Your task to perform on an android device: turn off location Image 0: 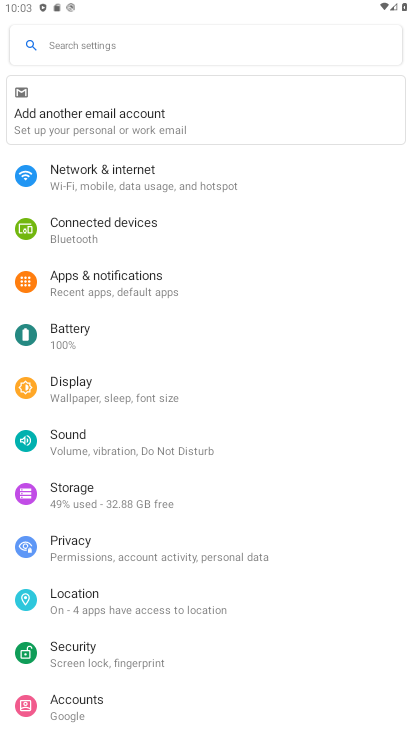
Step 0: click (112, 594)
Your task to perform on an android device: turn off location Image 1: 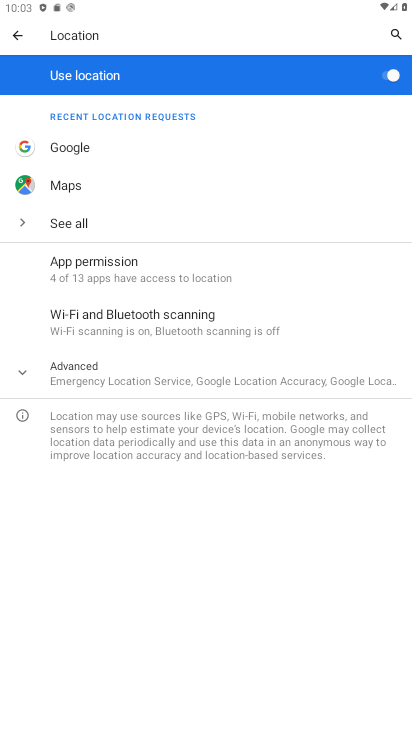
Step 1: click (383, 81)
Your task to perform on an android device: turn off location Image 2: 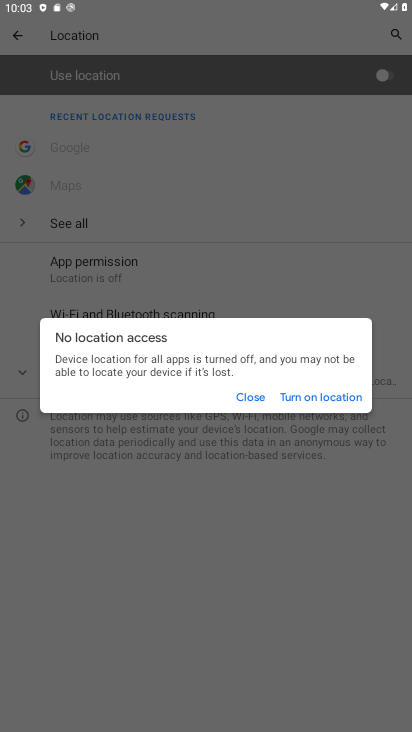
Step 2: click (254, 392)
Your task to perform on an android device: turn off location Image 3: 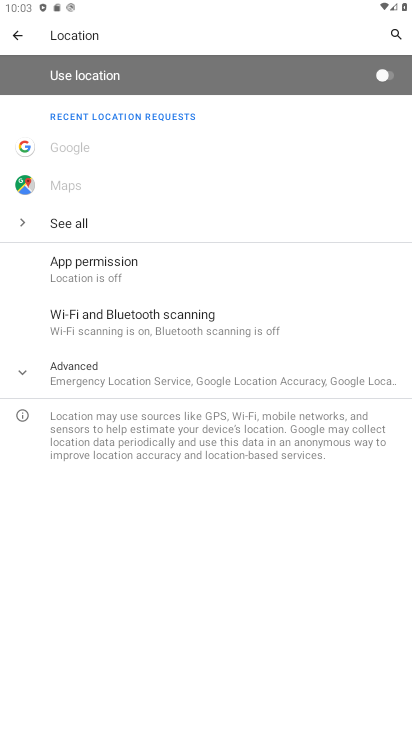
Step 3: task complete